Your task to perform on an android device: Open Wikipedia Image 0: 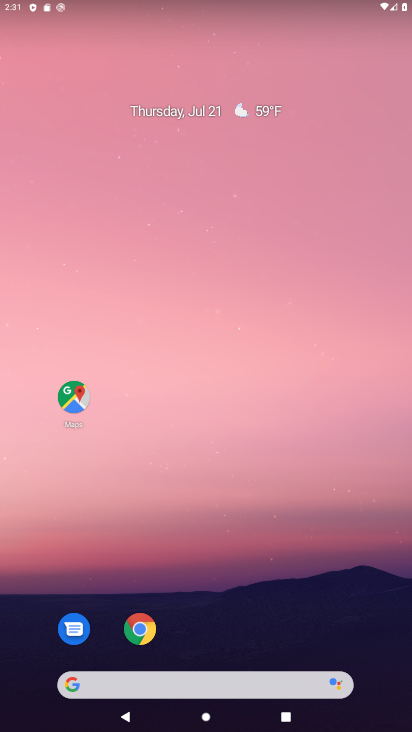
Step 0: drag from (235, 723) to (235, 275)
Your task to perform on an android device: Open Wikipedia Image 1: 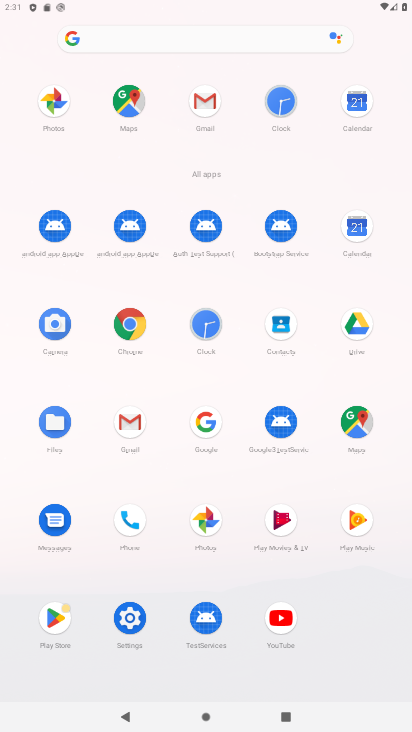
Step 1: click (127, 324)
Your task to perform on an android device: Open Wikipedia Image 2: 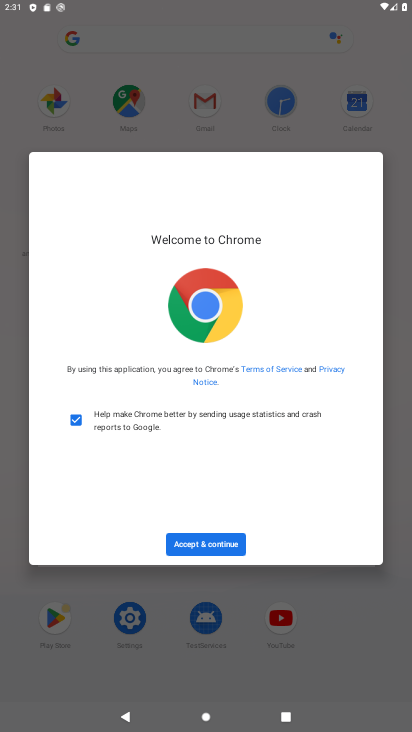
Step 2: click (195, 538)
Your task to perform on an android device: Open Wikipedia Image 3: 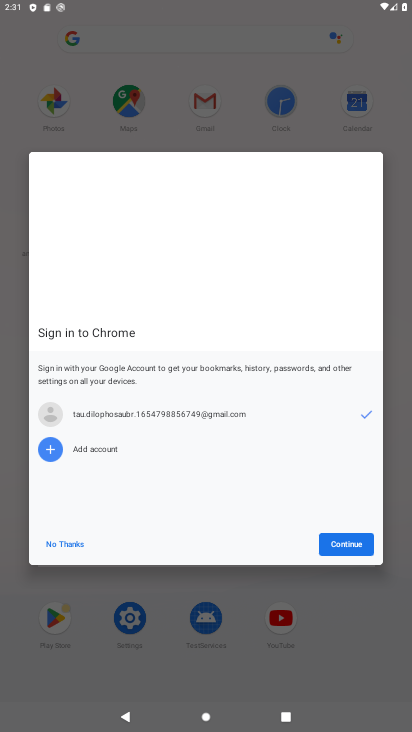
Step 3: click (356, 543)
Your task to perform on an android device: Open Wikipedia Image 4: 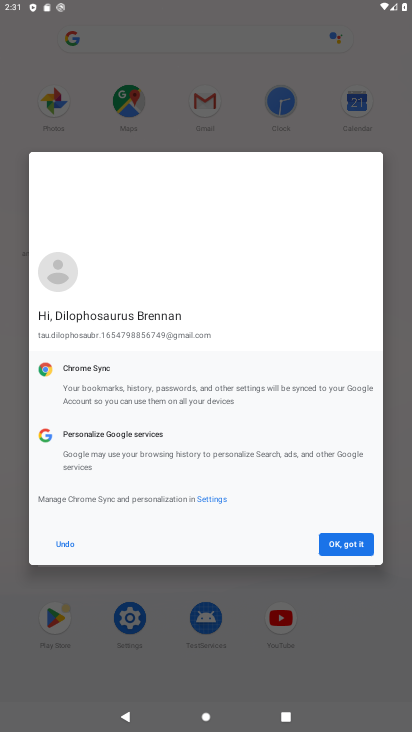
Step 4: click (353, 542)
Your task to perform on an android device: Open Wikipedia Image 5: 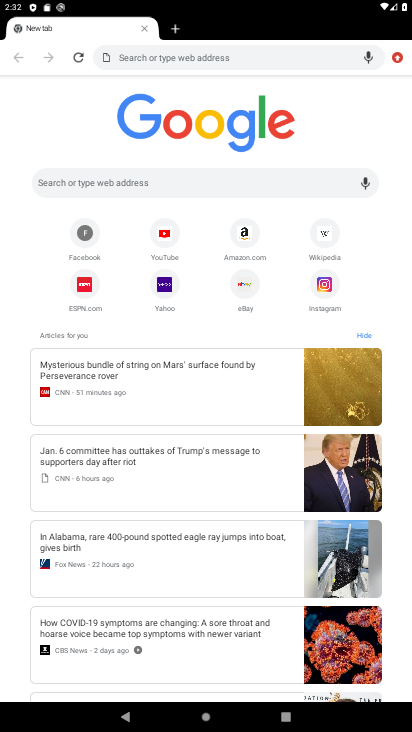
Step 5: click (324, 238)
Your task to perform on an android device: Open Wikipedia Image 6: 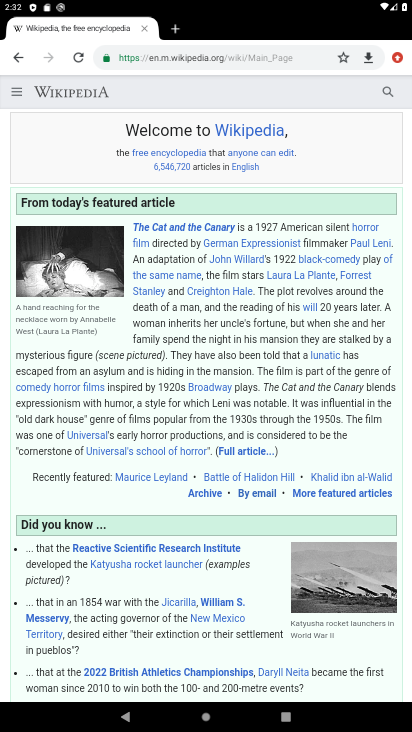
Step 6: task complete